Your task to perform on an android device: What is the recent news? Image 0: 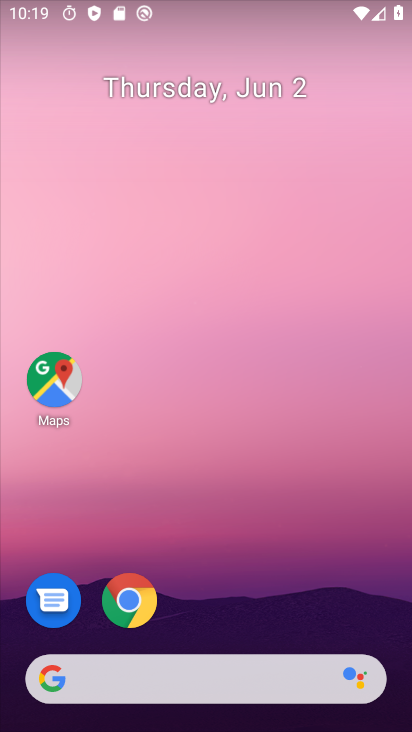
Step 0: drag from (189, 514) to (215, 120)
Your task to perform on an android device: What is the recent news? Image 1: 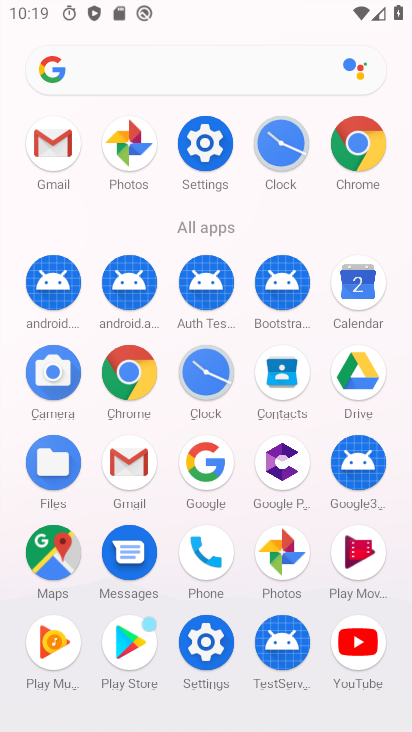
Step 1: click (207, 461)
Your task to perform on an android device: What is the recent news? Image 2: 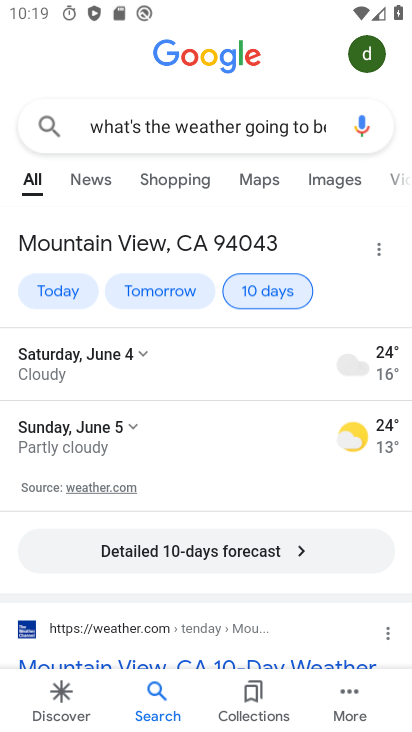
Step 2: click (269, 123)
Your task to perform on an android device: What is the recent news? Image 3: 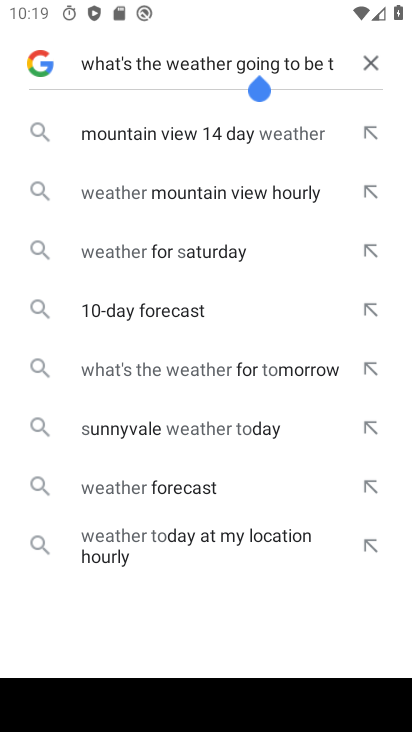
Step 3: click (366, 61)
Your task to perform on an android device: What is the recent news? Image 4: 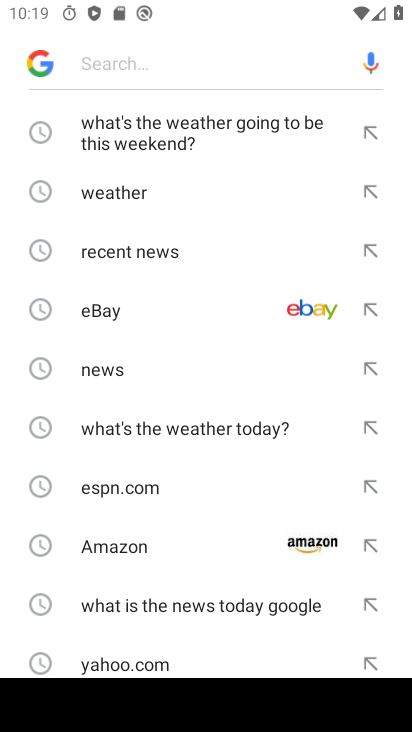
Step 4: click (149, 252)
Your task to perform on an android device: What is the recent news? Image 5: 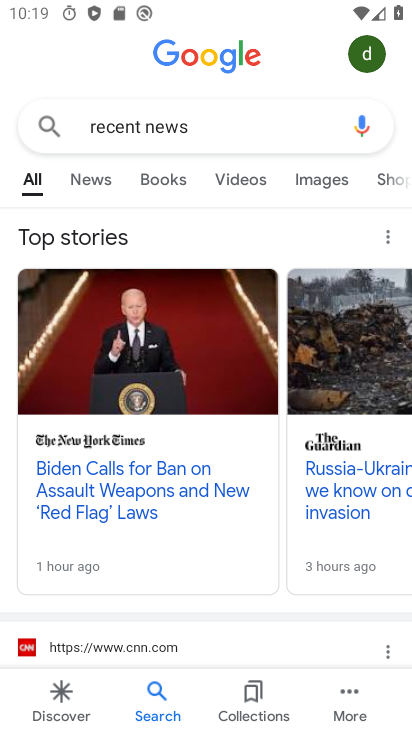
Step 5: task complete